Your task to perform on an android device: turn on the 24-hour format for clock Image 0: 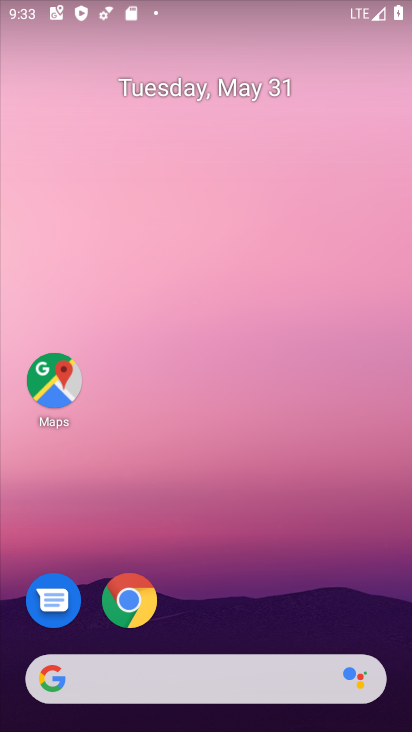
Step 0: drag from (234, 623) to (271, 108)
Your task to perform on an android device: turn on the 24-hour format for clock Image 1: 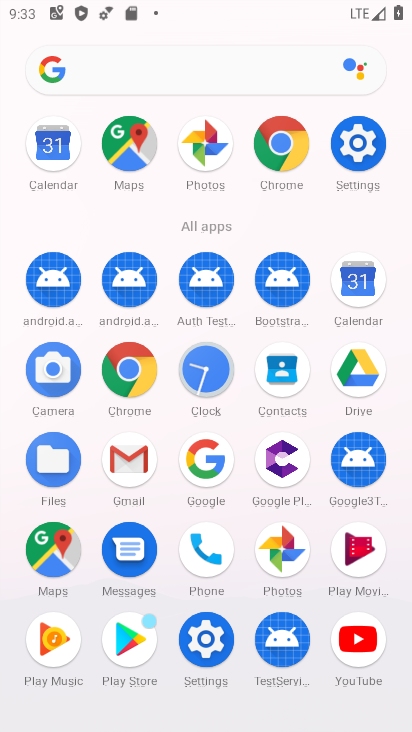
Step 1: click (204, 366)
Your task to perform on an android device: turn on the 24-hour format for clock Image 2: 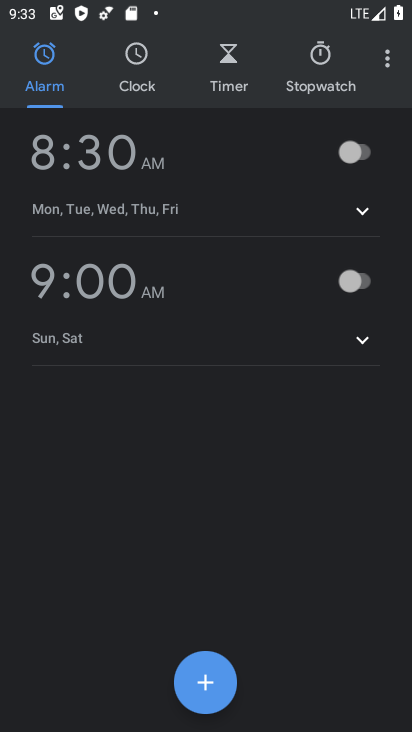
Step 2: click (389, 59)
Your task to perform on an android device: turn on the 24-hour format for clock Image 3: 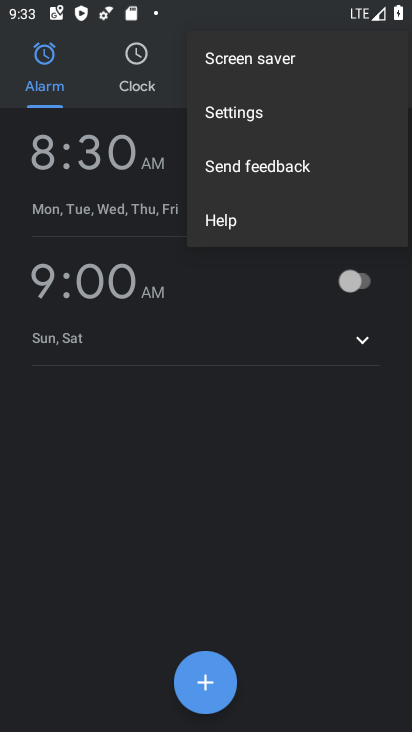
Step 3: click (282, 107)
Your task to perform on an android device: turn on the 24-hour format for clock Image 4: 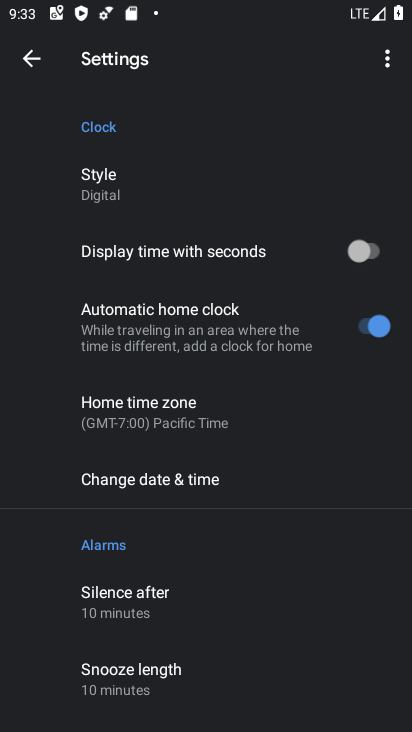
Step 4: click (164, 491)
Your task to perform on an android device: turn on the 24-hour format for clock Image 5: 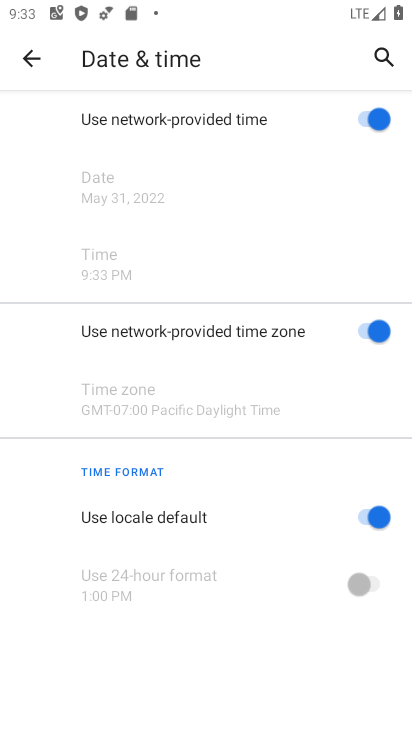
Step 5: click (364, 513)
Your task to perform on an android device: turn on the 24-hour format for clock Image 6: 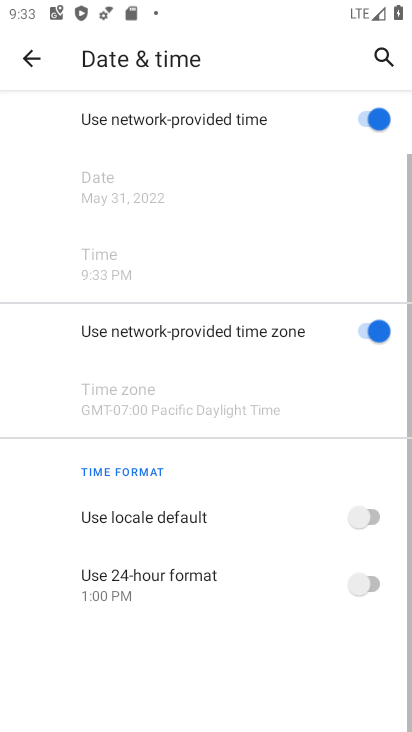
Step 6: click (358, 571)
Your task to perform on an android device: turn on the 24-hour format for clock Image 7: 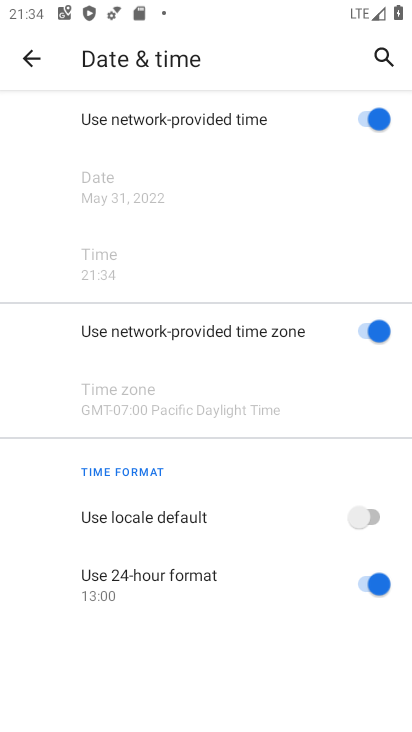
Step 7: task complete